Your task to perform on an android device: search for starred emails in the gmail app Image 0: 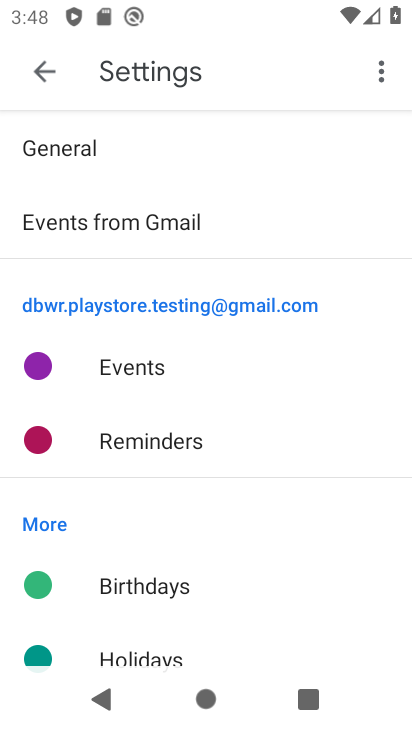
Step 0: press home button
Your task to perform on an android device: search for starred emails in the gmail app Image 1: 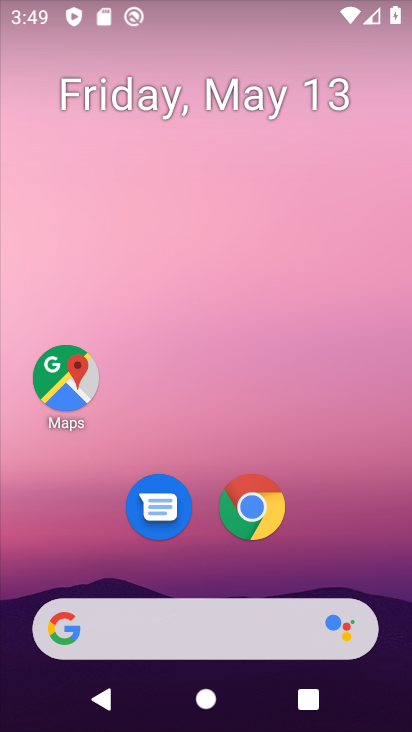
Step 1: drag from (358, 509) to (344, 31)
Your task to perform on an android device: search for starred emails in the gmail app Image 2: 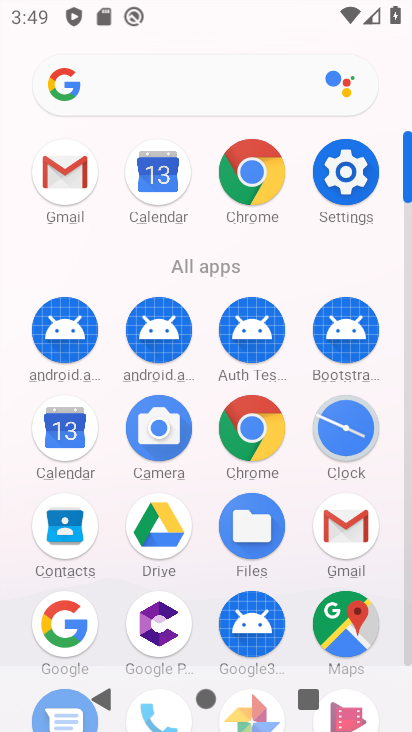
Step 2: click (62, 163)
Your task to perform on an android device: search for starred emails in the gmail app Image 3: 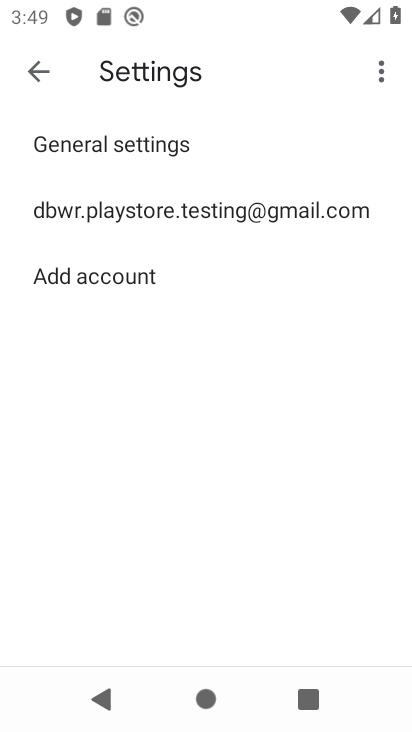
Step 3: click (48, 90)
Your task to perform on an android device: search for starred emails in the gmail app Image 4: 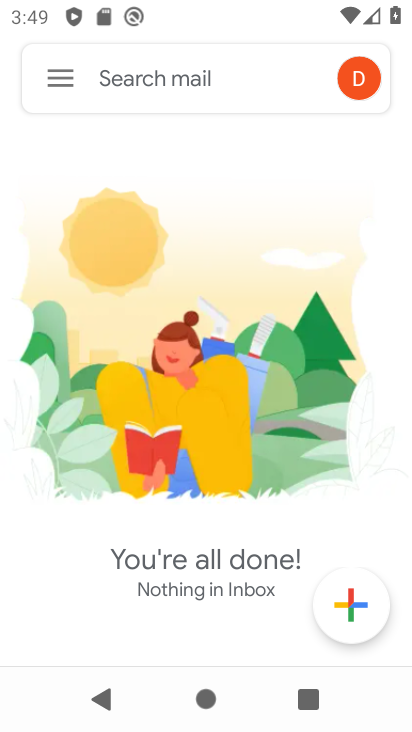
Step 4: click (48, 74)
Your task to perform on an android device: search for starred emails in the gmail app Image 5: 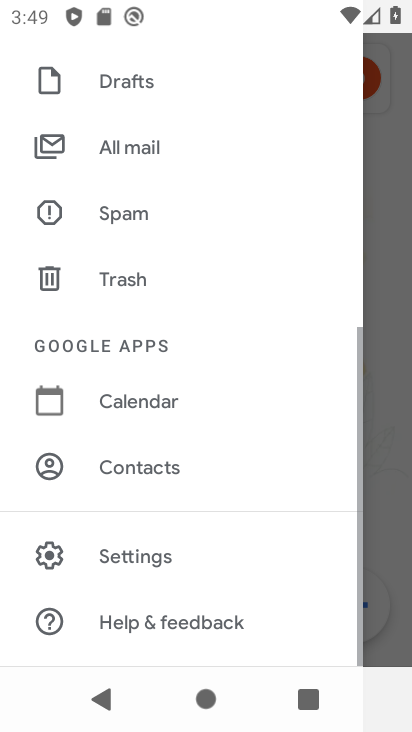
Step 5: drag from (199, 235) to (214, 603)
Your task to perform on an android device: search for starred emails in the gmail app Image 6: 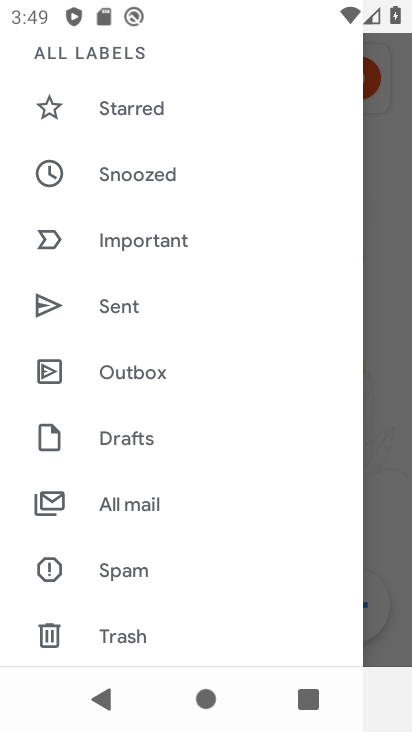
Step 6: click (151, 113)
Your task to perform on an android device: search for starred emails in the gmail app Image 7: 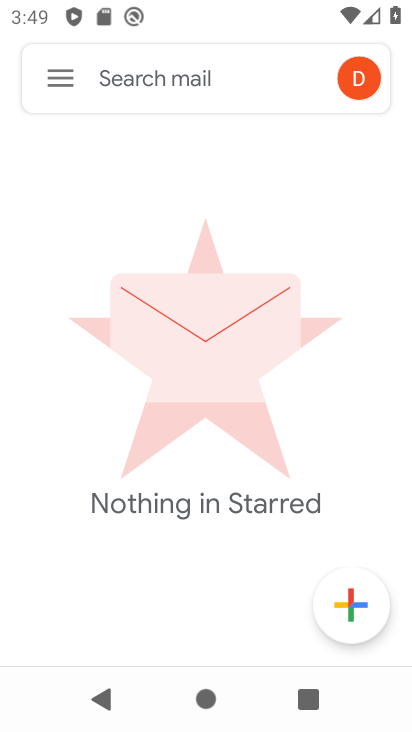
Step 7: task complete